Your task to perform on an android device: Open Google Maps and go to "Timeline" Image 0: 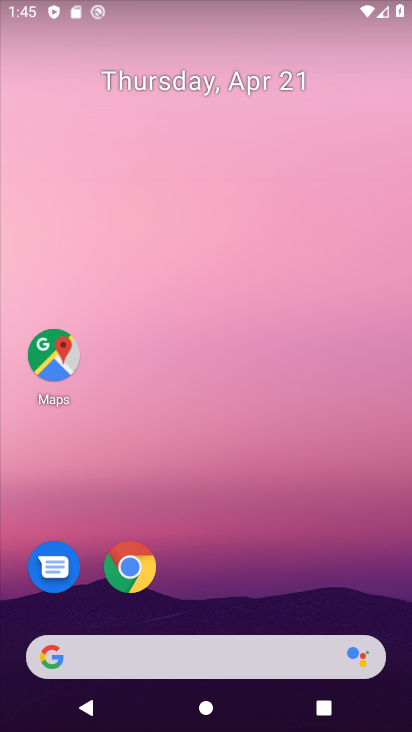
Step 0: press home button
Your task to perform on an android device: Open Google Maps and go to "Timeline" Image 1: 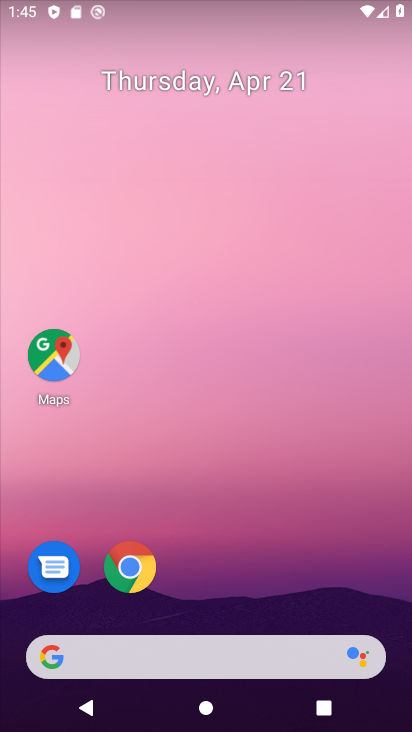
Step 1: drag from (182, 656) to (350, 3)
Your task to perform on an android device: Open Google Maps and go to "Timeline" Image 2: 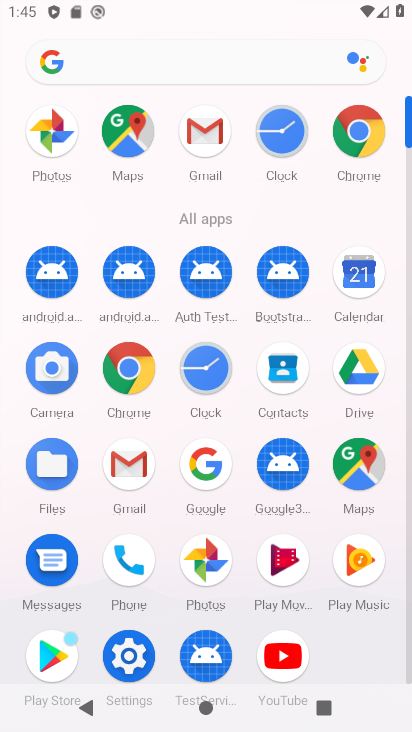
Step 2: click (127, 147)
Your task to perform on an android device: Open Google Maps and go to "Timeline" Image 3: 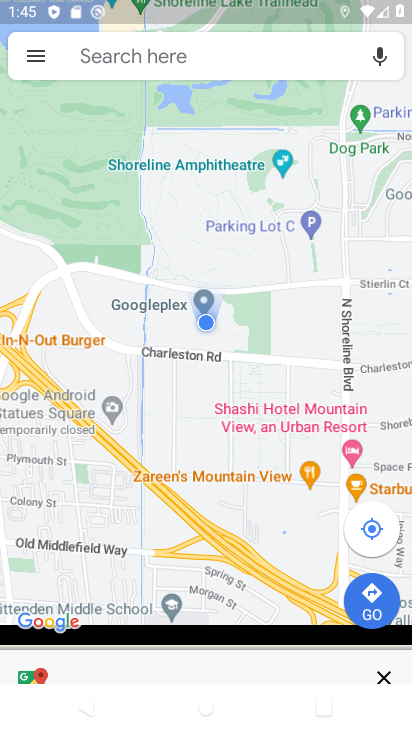
Step 3: click (33, 57)
Your task to perform on an android device: Open Google Maps and go to "Timeline" Image 4: 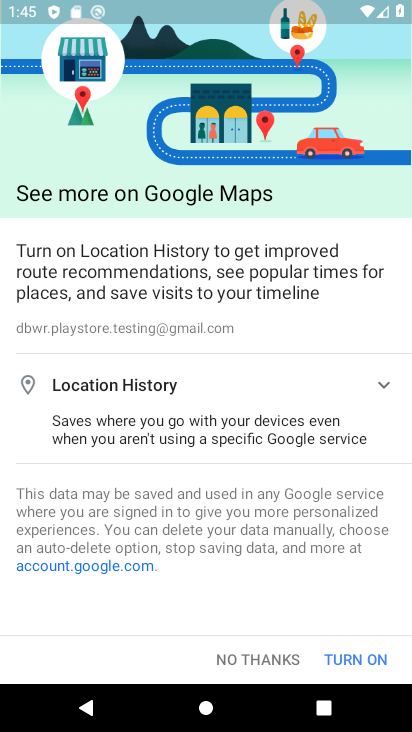
Step 4: click (231, 660)
Your task to perform on an android device: Open Google Maps and go to "Timeline" Image 5: 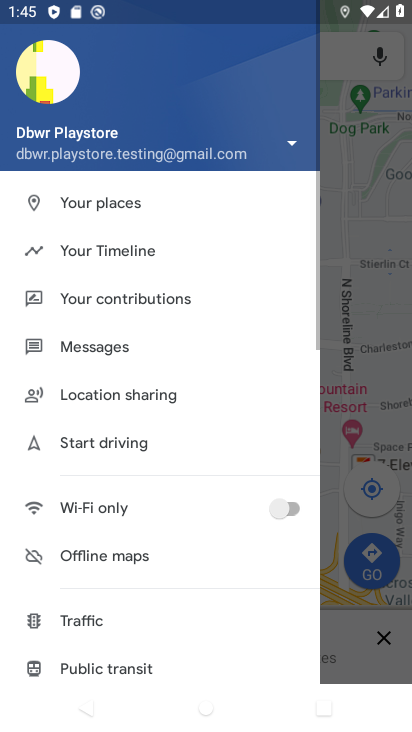
Step 5: click (88, 249)
Your task to perform on an android device: Open Google Maps and go to "Timeline" Image 6: 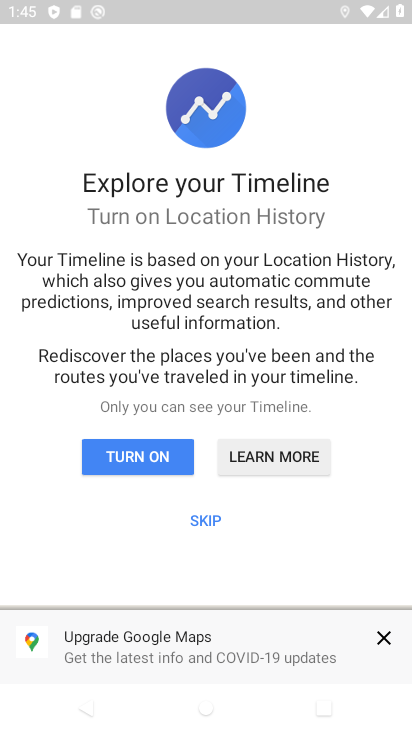
Step 6: click (205, 521)
Your task to perform on an android device: Open Google Maps and go to "Timeline" Image 7: 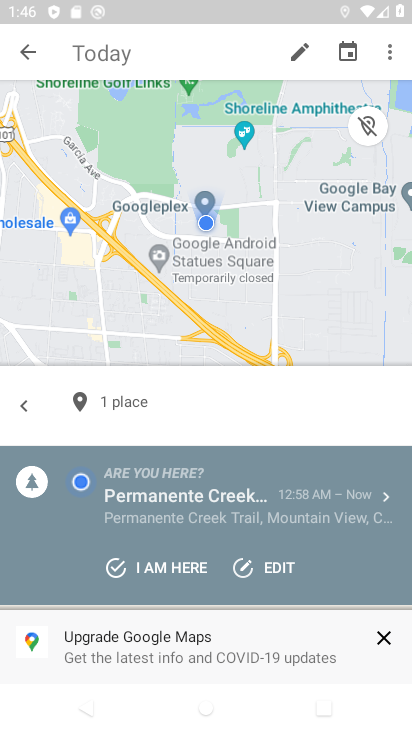
Step 7: task complete